Your task to perform on an android device: Check the weather Image 0: 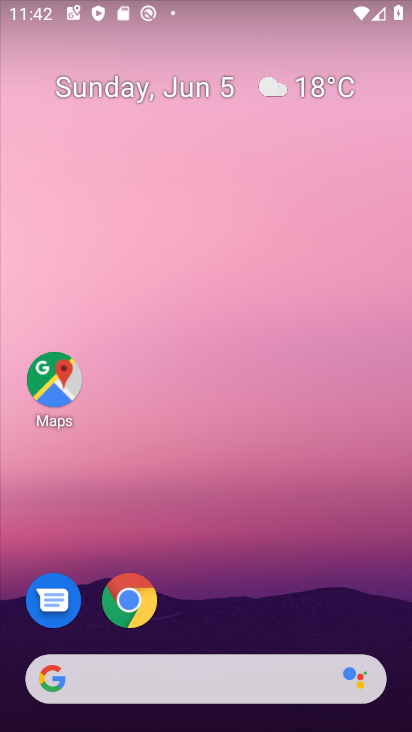
Step 0: click (232, 690)
Your task to perform on an android device: Check the weather Image 1: 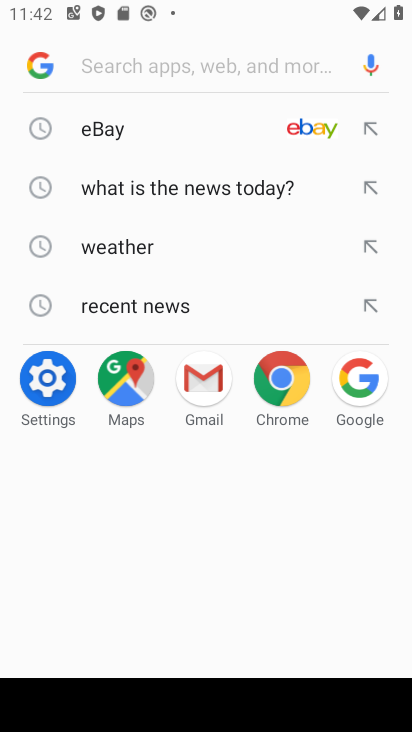
Step 1: click (111, 246)
Your task to perform on an android device: Check the weather Image 2: 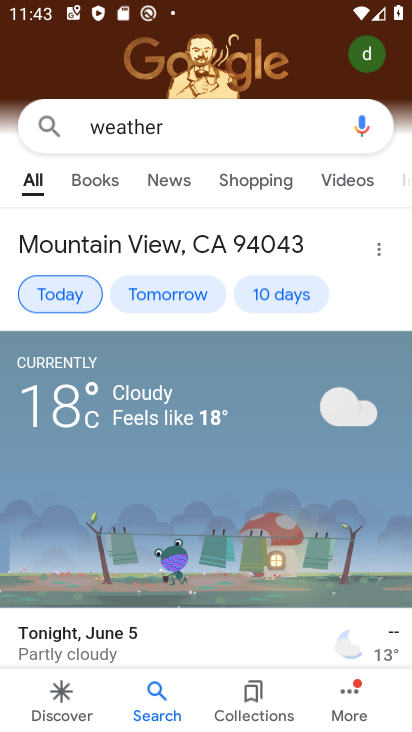
Step 2: task complete